Your task to perform on an android device: allow cookies in the chrome app Image 0: 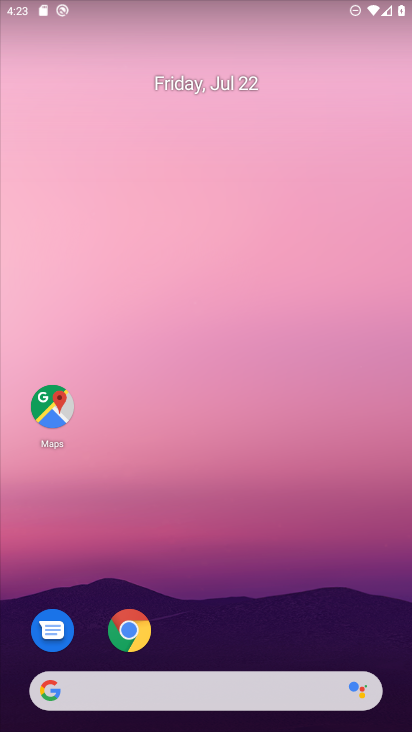
Step 0: click (126, 622)
Your task to perform on an android device: allow cookies in the chrome app Image 1: 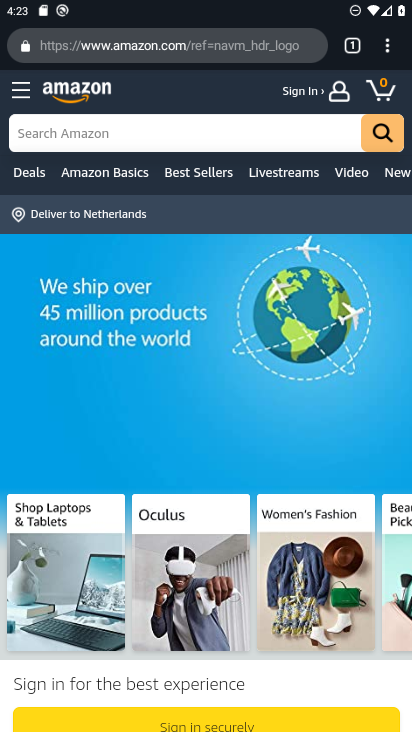
Step 1: click (382, 41)
Your task to perform on an android device: allow cookies in the chrome app Image 2: 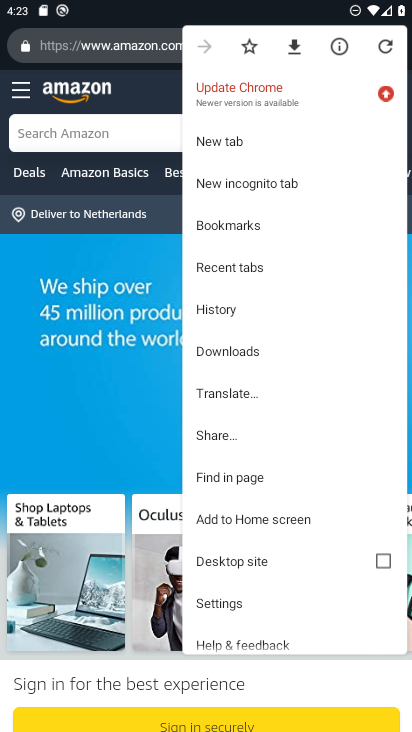
Step 2: click (231, 603)
Your task to perform on an android device: allow cookies in the chrome app Image 3: 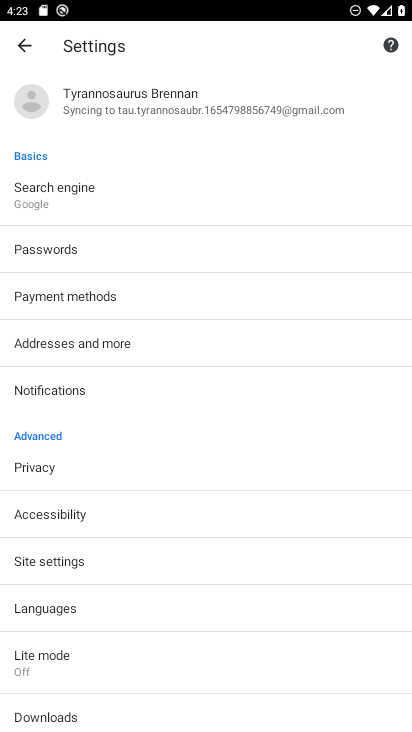
Step 3: click (53, 561)
Your task to perform on an android device: allow cookies in the chrome app Image 4: 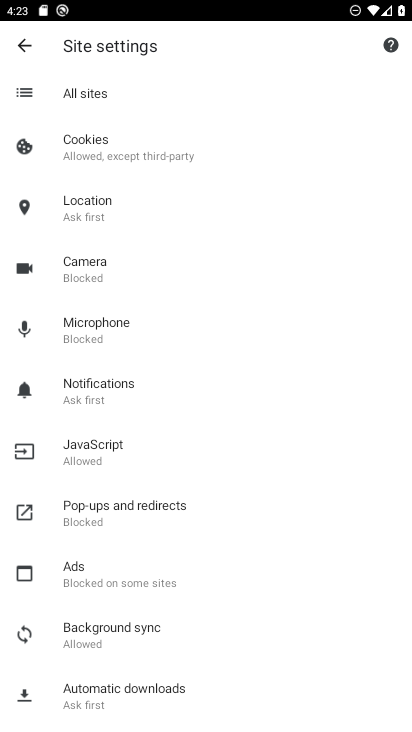
Step 4: click (113, 152)
Your task to perform on an android device: allow cookies in the chrome app Image 5: 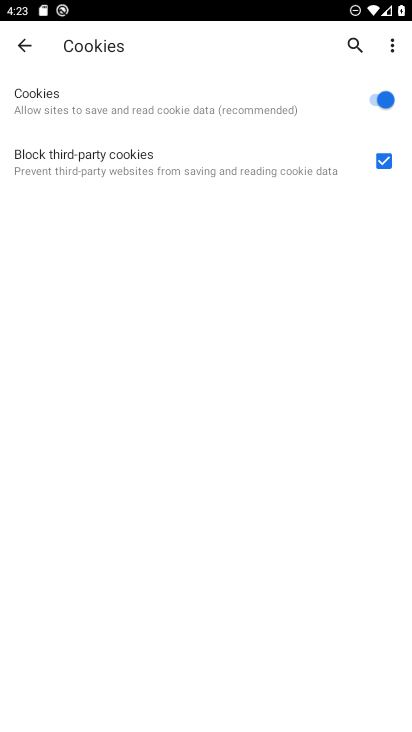
Step 5: task complete